Your task to perform on an android device: Open settings on Google Maps Image 0: 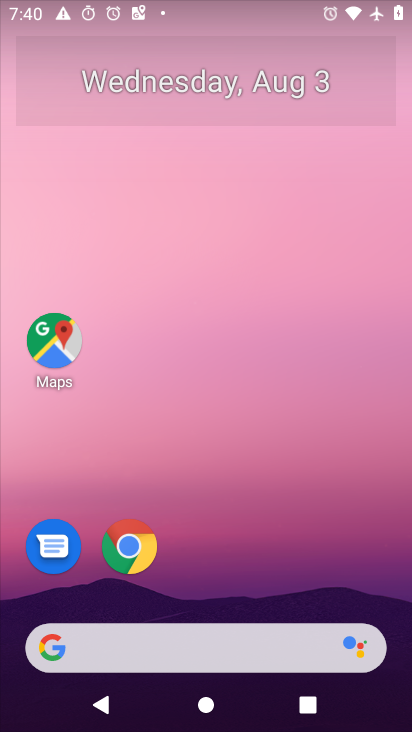
Step 0: press home button
Your task to perform on an android device: Open settings on Google Maps Image 1: 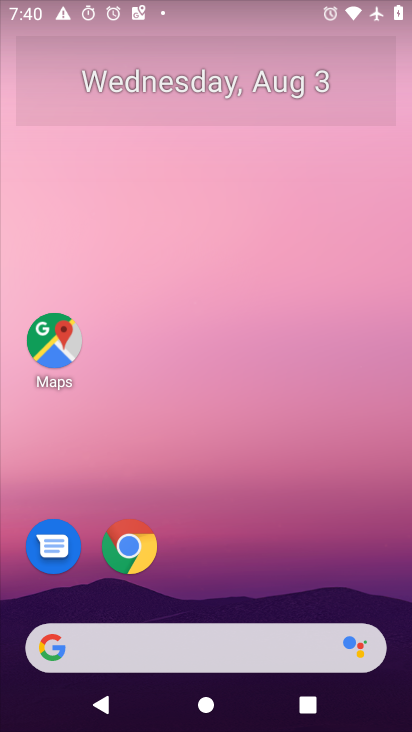
Step 1: click (58, 345)
Your task to perform on an android device: Open settings on Google Maps Image 2: 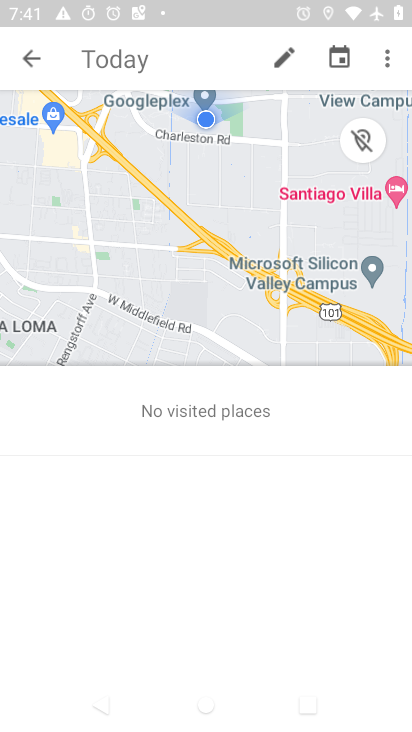
Step 2: click (27, 62)
Your task to perform on an android device: Open settings on Google Maps Image 3: 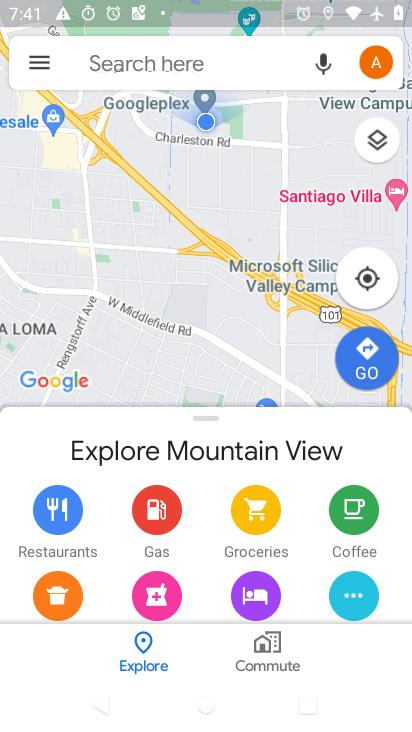
Step 3: click (36, 57)
Your task to perform on an android device: Open settings on Google Maps Image 4: 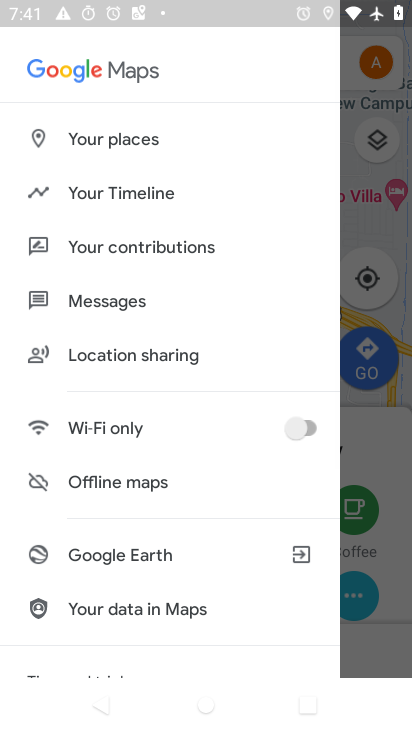
Step 4: drag from (248, 597) to (221, 159)
Your task to perform on an android device: Open settings on Google Maps Image 5: 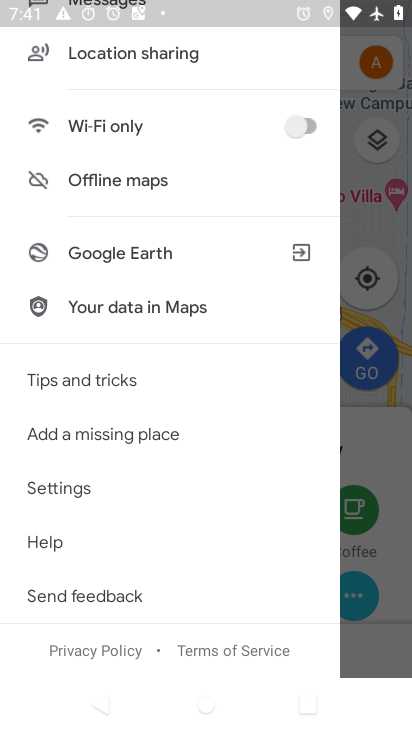
Step 5: click (56, 483)
Your task to perform on an android device: Open settings on Google Maps Image 6: 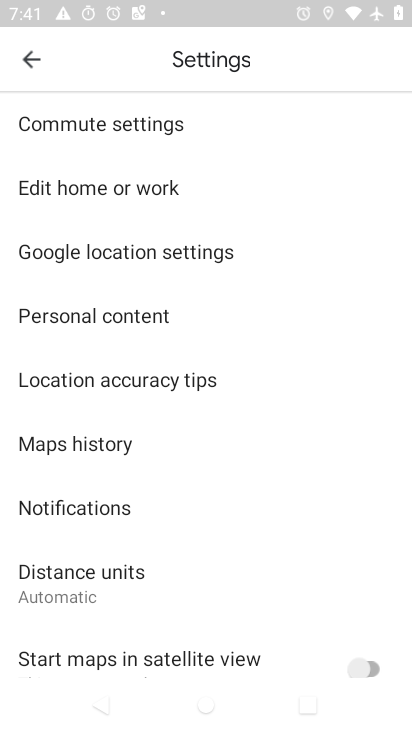
Step 6: task complete